Your task to perform on an android device: Open the phone app and click the voicemail tab. Image 0: 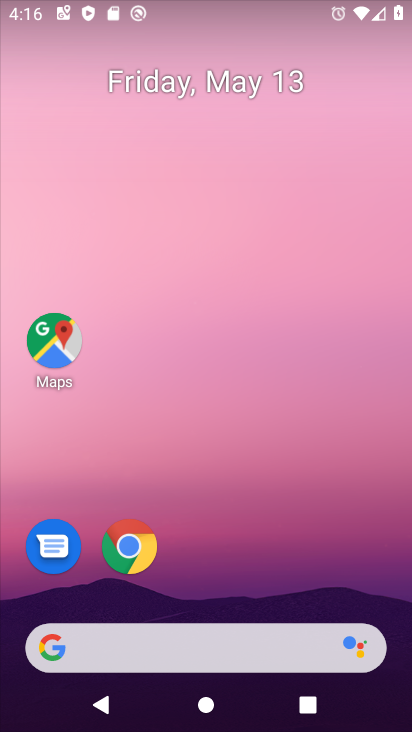
Step 0: drag from (213, 547) to (308, 102)
Your task to perform on an android device: Open the phone app and click the voicemail tab. Image 1: 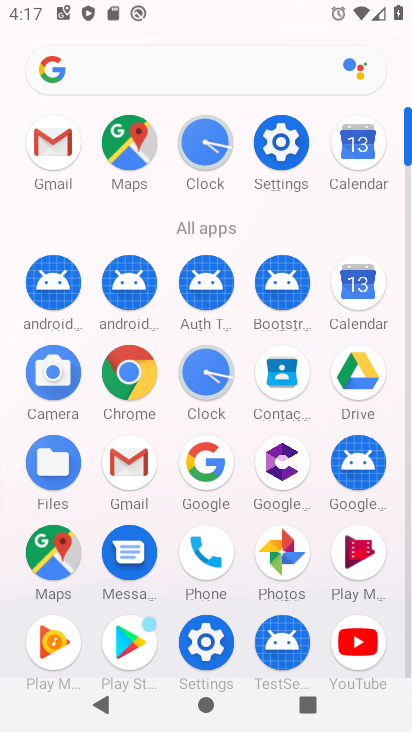
Step 1: click (198, 567)
Your task to perform on an android device: Open the phone app and click the voicemail tab. Image 2: 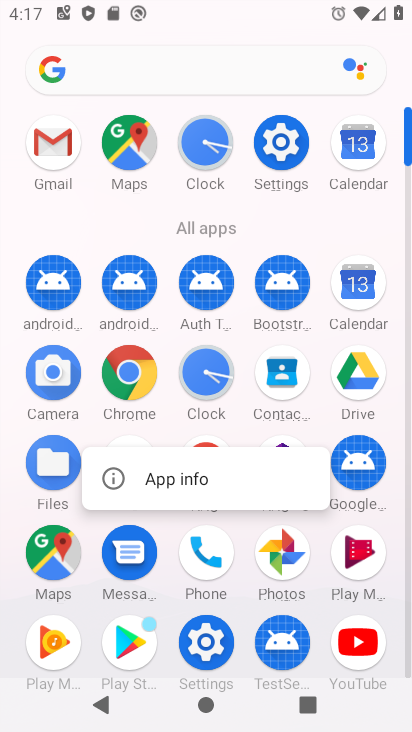
Step 2: click (211, 567)
Your task to perform on an android device: Open the phone app and click the voicemail tab. Image 3: 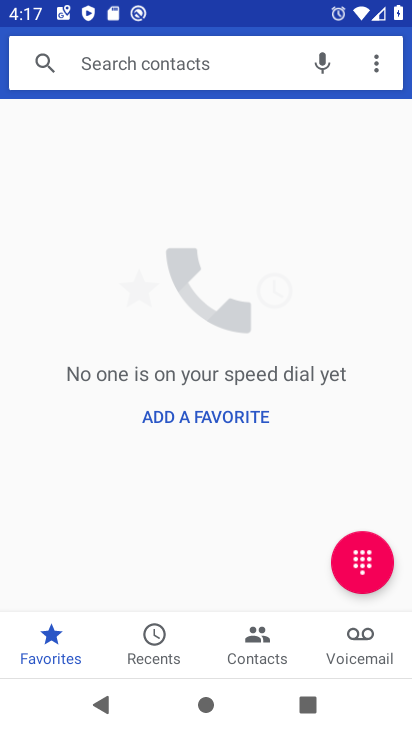
Step 3: click (354, 645)
Your task to perform on an android device: Open the phone app and click the voicemail tab. Image 4: 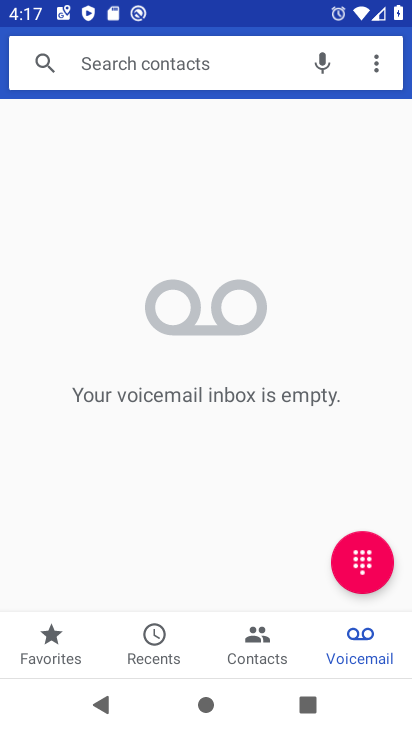
Step 4: task complete